Your task to perform on an android device: turn pop-ups on in chrome Image 0: 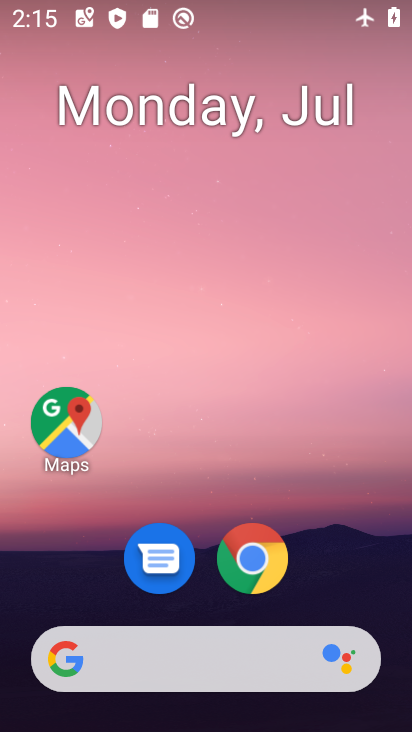
Step 0: press home button
Your task to perform on an android device: turn pop-ups on in chrome Image 1: 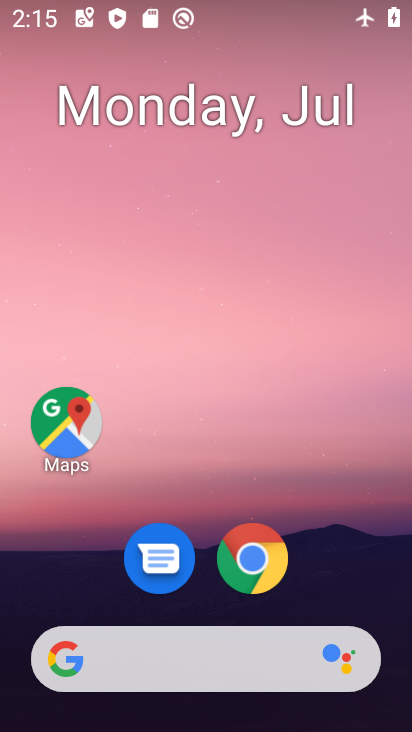
Step 1: drag from (360, 560) to (349, 175)
Your task to perform on an android device: turn pop-ups on in chrome Image 2: 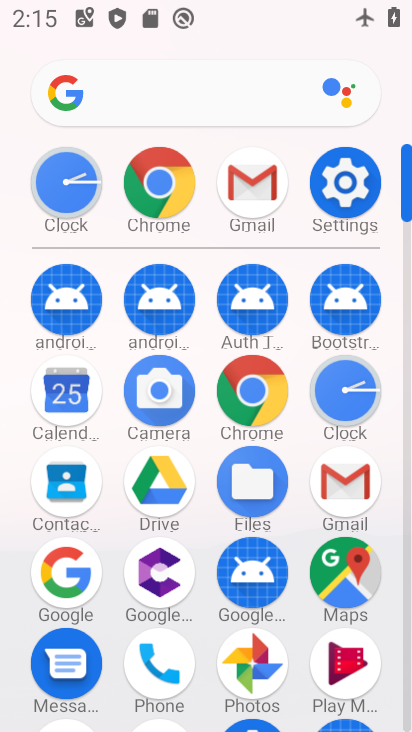
Step 2: click (274, 396)
Your task to perform on an android device: turn pop-ups on in chrome Image 3: 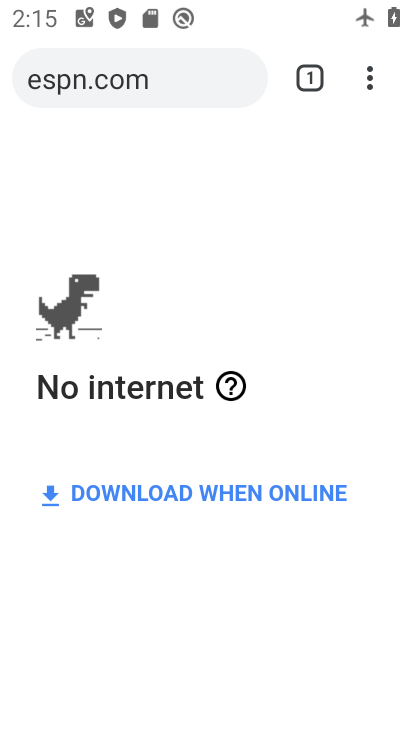
Step 3: click (367, 85)
Your task to perform on an android device: turn pop-ups on in chrome Image 4: 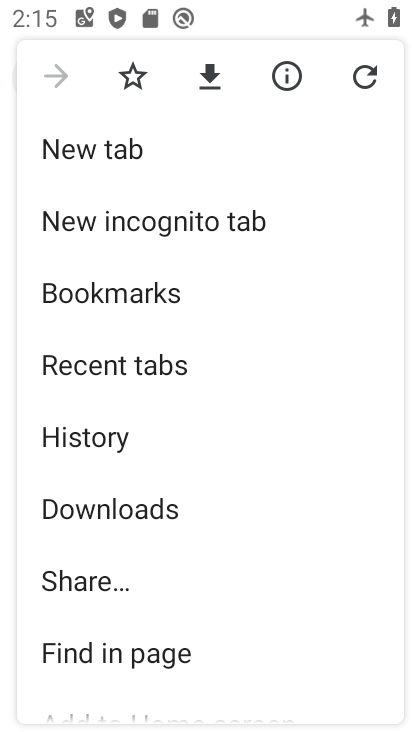
Step 4: drag from (319, 478) to (322, 266)
Your task to perform on an android device: turn pop-ups on in chrome Image 5: 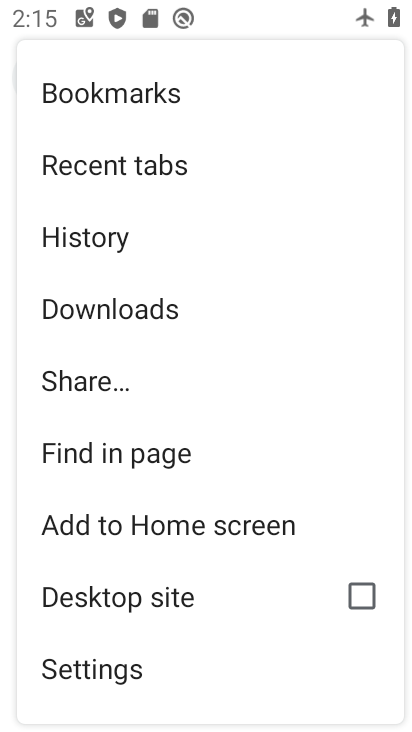
Step 5: drag from (286, 443) to (296, 261)
Your task to perform on an android device: turn pop-ups on in chrome Image 6: 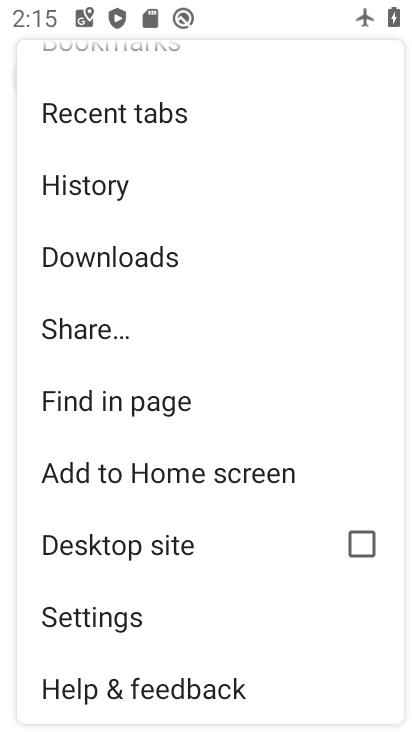
Step 6: drag from (272, 532) to (273, 397)
Your task to perform on an android device: turn pop-ups on in chrome Image 7: 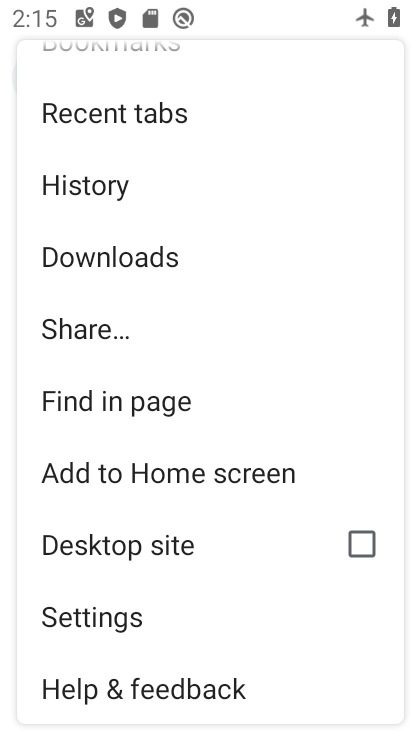
Step 7: drag from (277, 230) to (266, 373)
Your task to perform on an android device: turn pop-ups on in chrome Image 8: 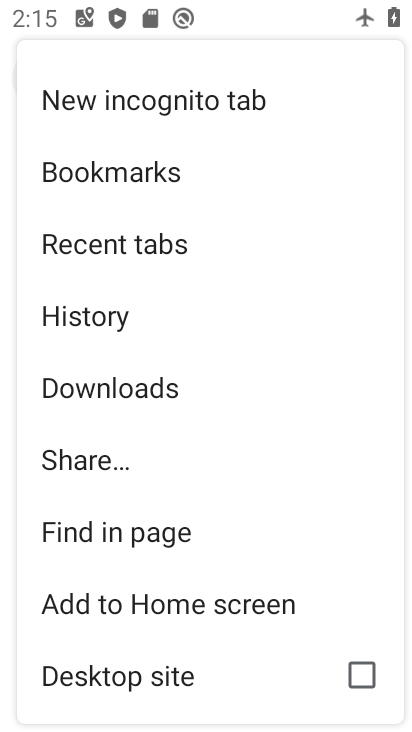
Step 8: drag from (265, 521) to (255, 285)
Your task to perform on an android device: turn pop-ups on in chrome Image 9: 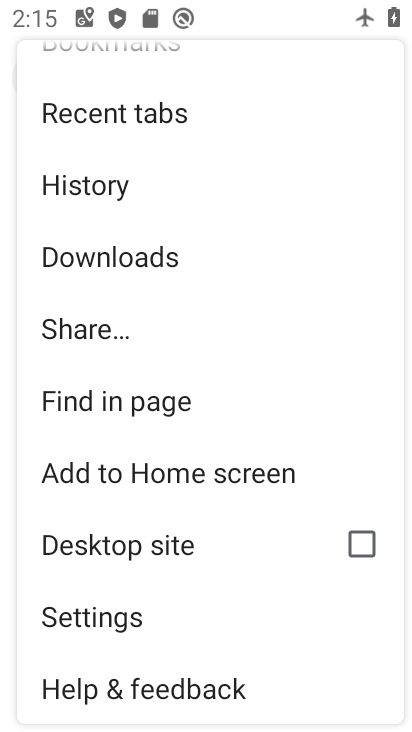
Step 9: click (168, 638)
Your task to perform on an android device: turn pop-ups on in chrome Image 10: 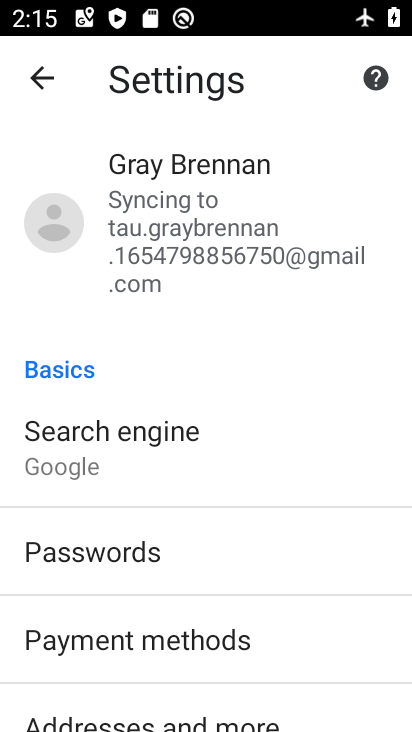
Step 10: drag from (308, 582) to (325, 431)
Your task to perform on an android device: turn pop-ups on in chrome Image 11: 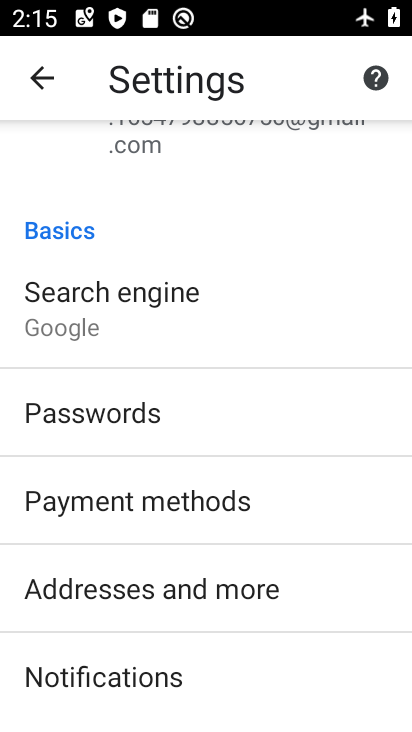
Step 11: drag from (331, 529) to (330, 351)
Your task to perform on an android device: turn pop-ups on in chrome Image 12: 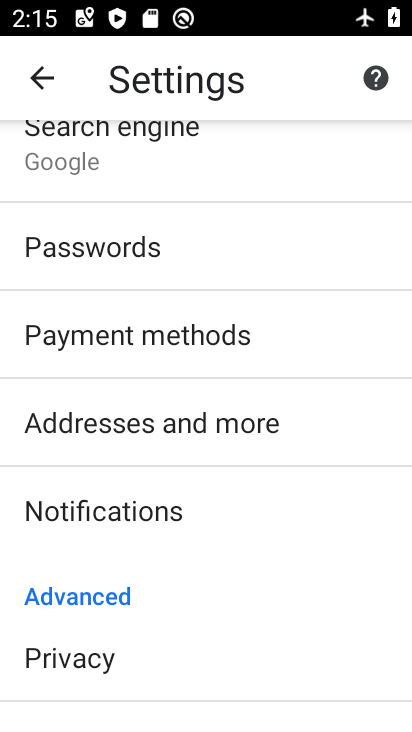
Step 12: drag from (316, 573) to (303, 411)
Your task to perform on an android device: turn pop-ups on in chrome Image 13: 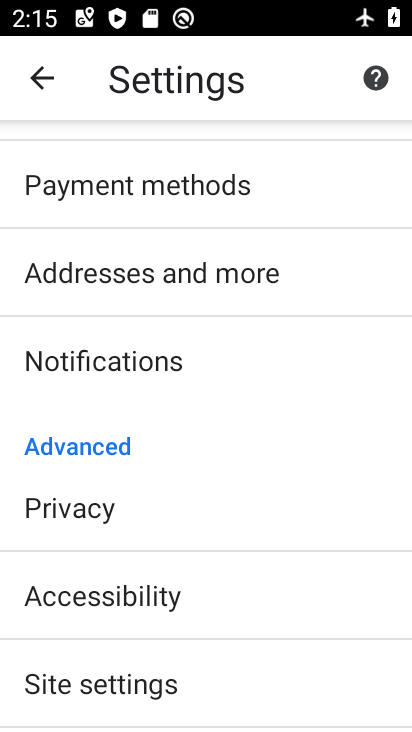
Step 13: drag from (287, 571) to (280, 416)
Your task to perform on an android device: turn pop-ups on in chrome Image 14: 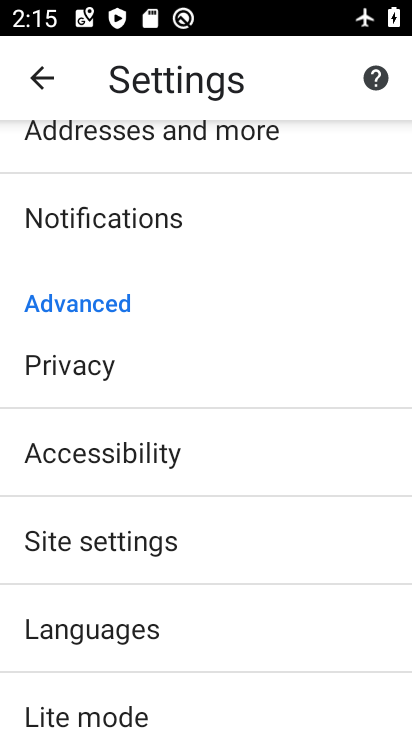
Step 14: click (257, 534)
Your task to perform on an android device: turn pop-ups on in chrome Image 15: 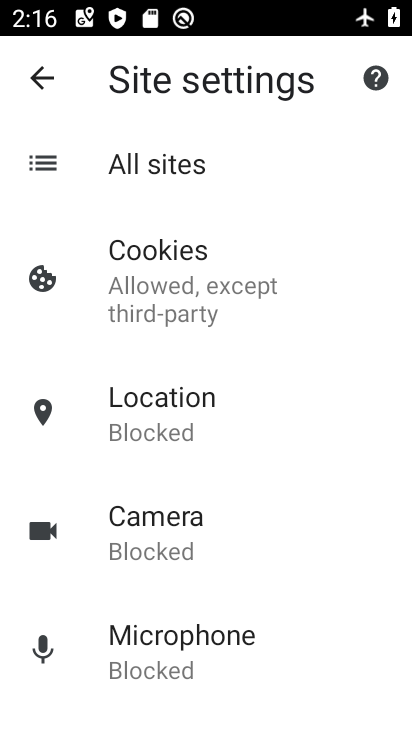
Step 15: drag from (279, 525) to (281, 411)
Your task to perform on an android device: turn pop-ups on in chrome Image 16: 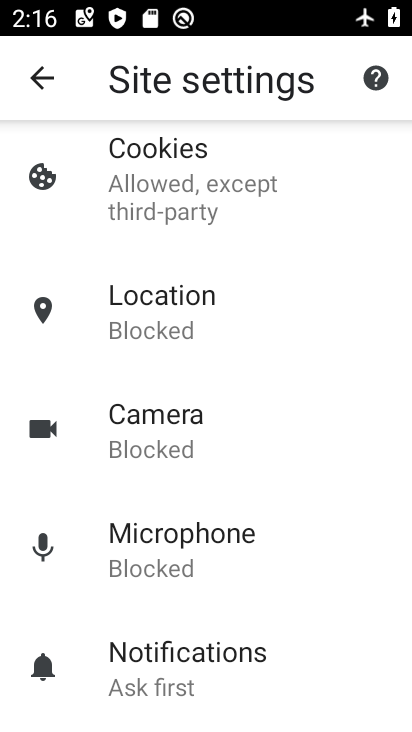
Step 16: drag from (274, 571) to (260, 411)
Your task to perform on an android device: turn pop-ups on in chrome Image 17: 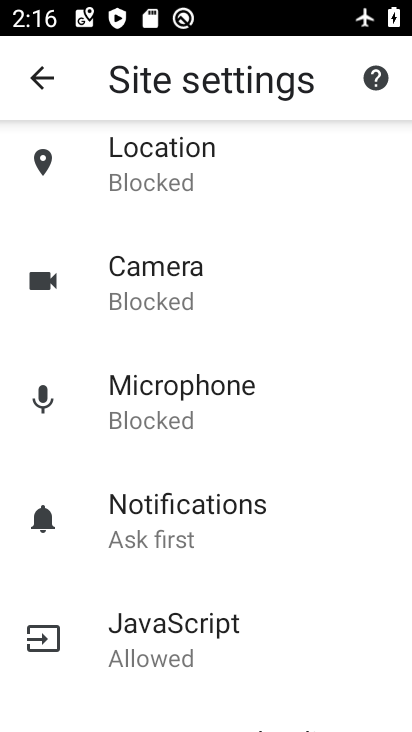
Step 17: drag from (258, 507) to (241, 383)
Your task to perform on an android device: turn pop-ups on in chrome Image 18: 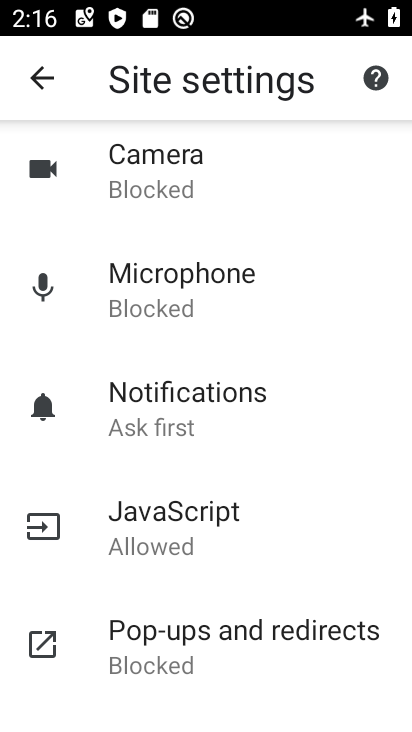
Step 18: drag from (229, 533) to (222, 409)
Your task to perform on an android device: turn pop-ups on in chrome Image 19: 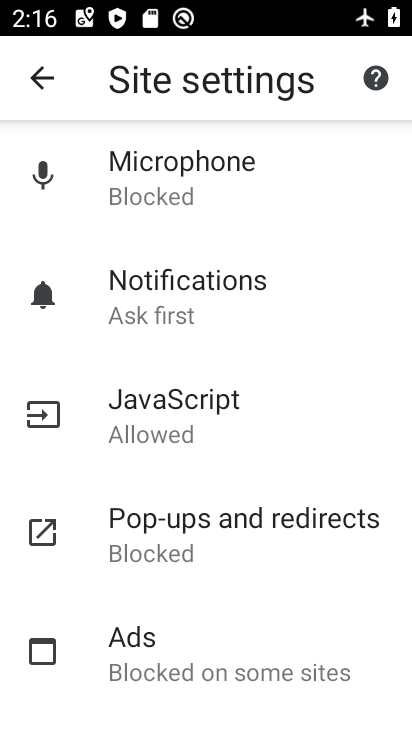
Step 19: click (236, 546)
Your task to perform on an android device: turn pop-ups on in chrome Image 20: 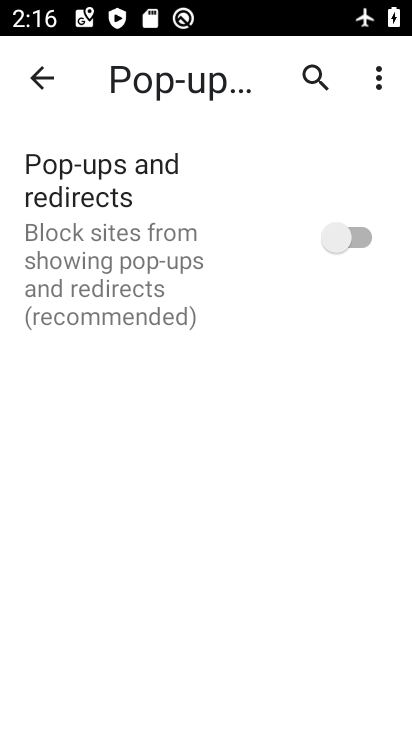
Step 20: click (347, 234)
Your task to perform on an android device: turn pop-ups on in chrome Image 21: 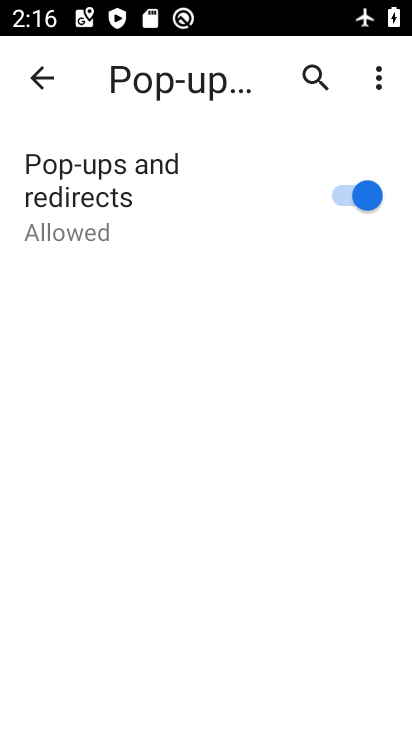
Step 21: task complete